Your task to perform on an android device: Open network settings Image 0: 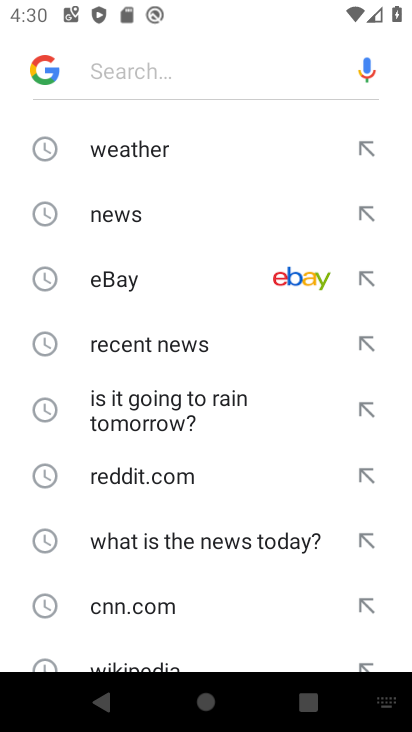
Step 0: press home button
Your task to perform on an android device: Open network settings Image 1: 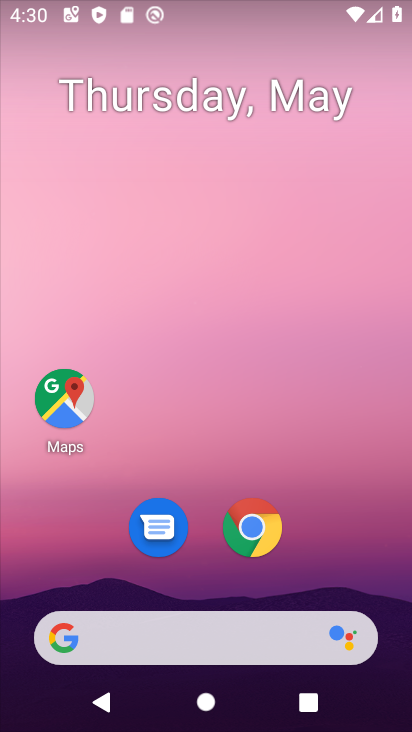
Step 1: drag from (381, 572) to (359, 13)
Your task to perform on an android device: Open network settings Image 2: 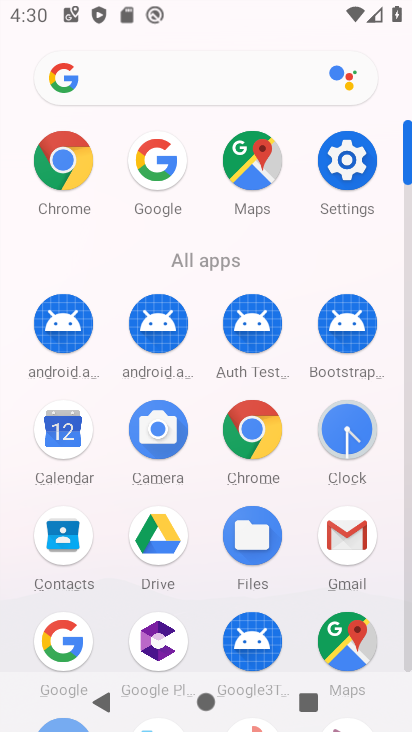
Step 2: click (355, 142)
Your task to perform on an android device: Open network settings Image 3: 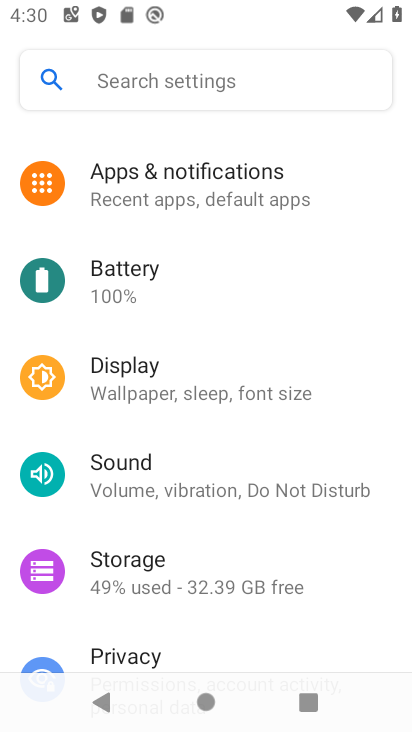
Step 3: drag from (212, 594) to (297, 243)
Your task to perform on an android device: Open network settings Image 4: 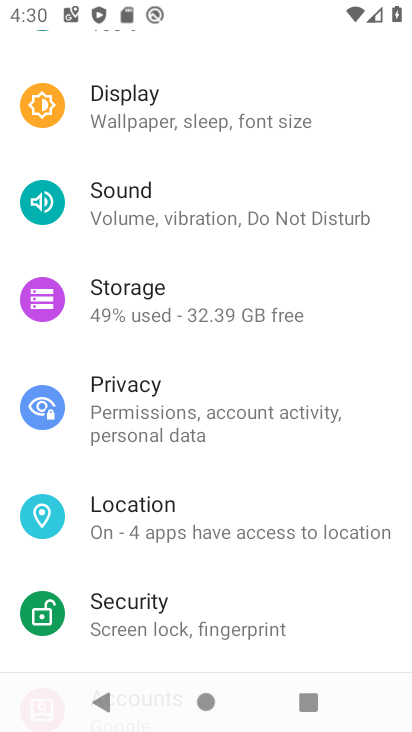
Step 4: drag from (274, 183) to (304, 617)
Your task to perform on an android device: Open network settings Image 5: 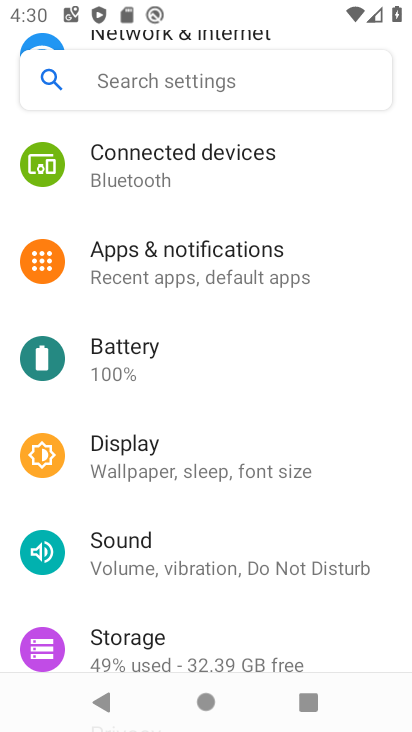
Step 5: drag from (288, 198) to (287, 645)
Your task to perform on an android device: Open network settings Image 6: 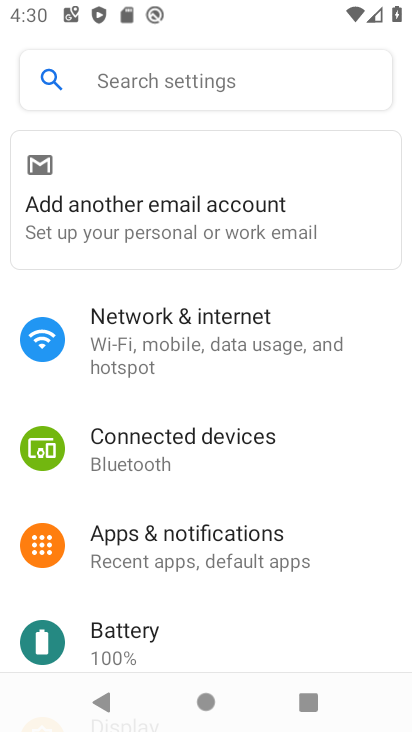
Step 6: click (196, 335)
Your task to perform on an android device: Open network settings Image 7: 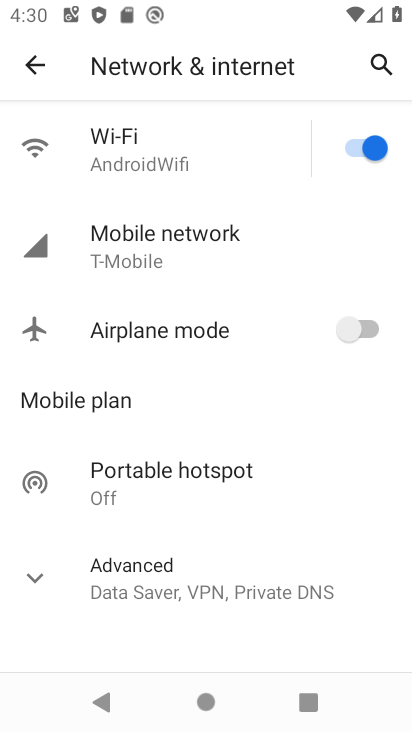
Step 7: click (161, 241)
Your task to perform on an android device: Open network settings Image 8: 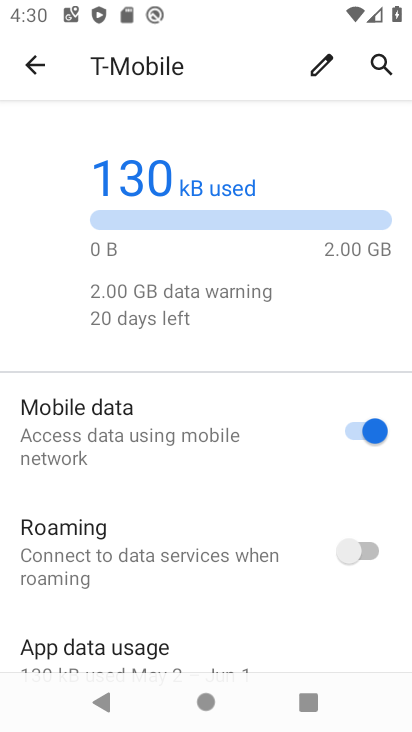
Step 8: task complete